Your task to perform on an android device: Go to sound settings Image 0: 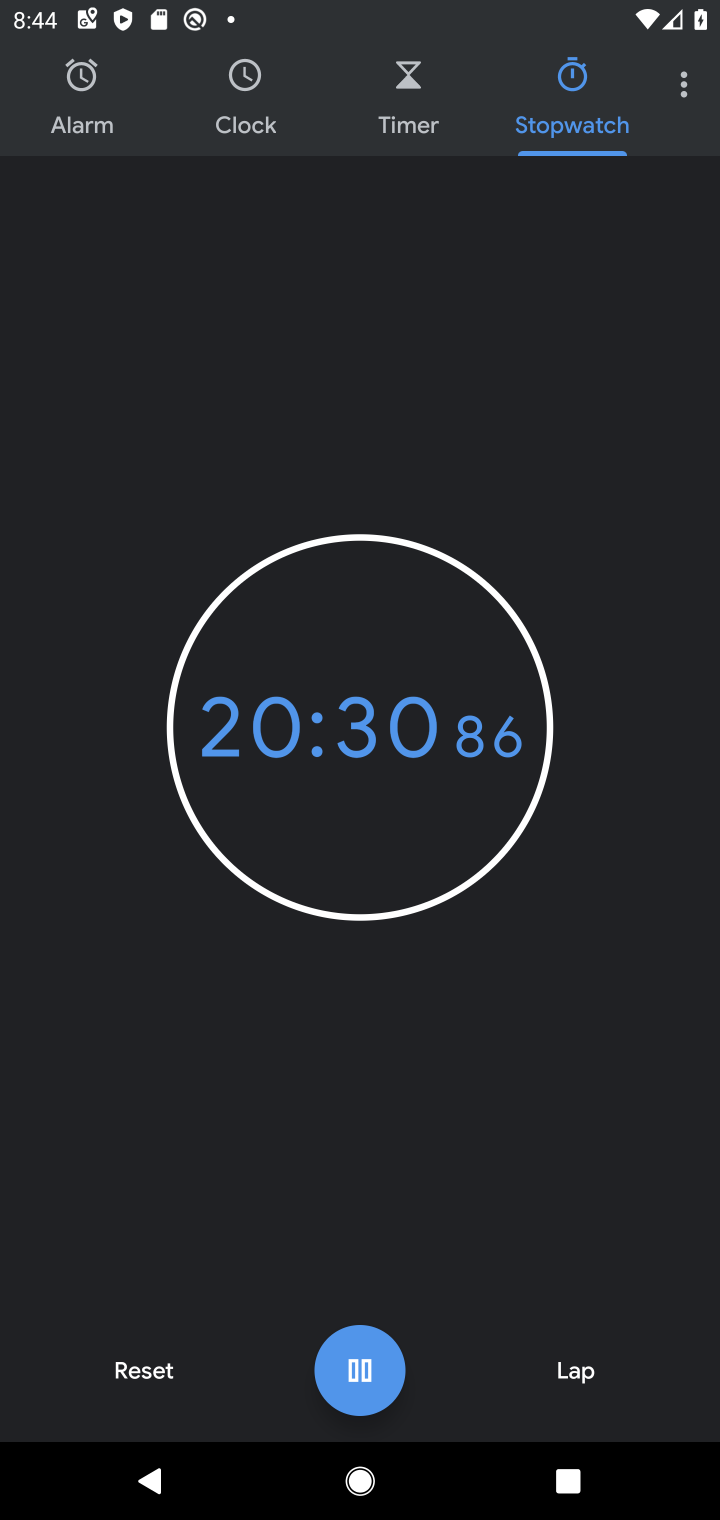
Step 0: press home button
Your task to perform on an android device: Go to sound settings Image 1: 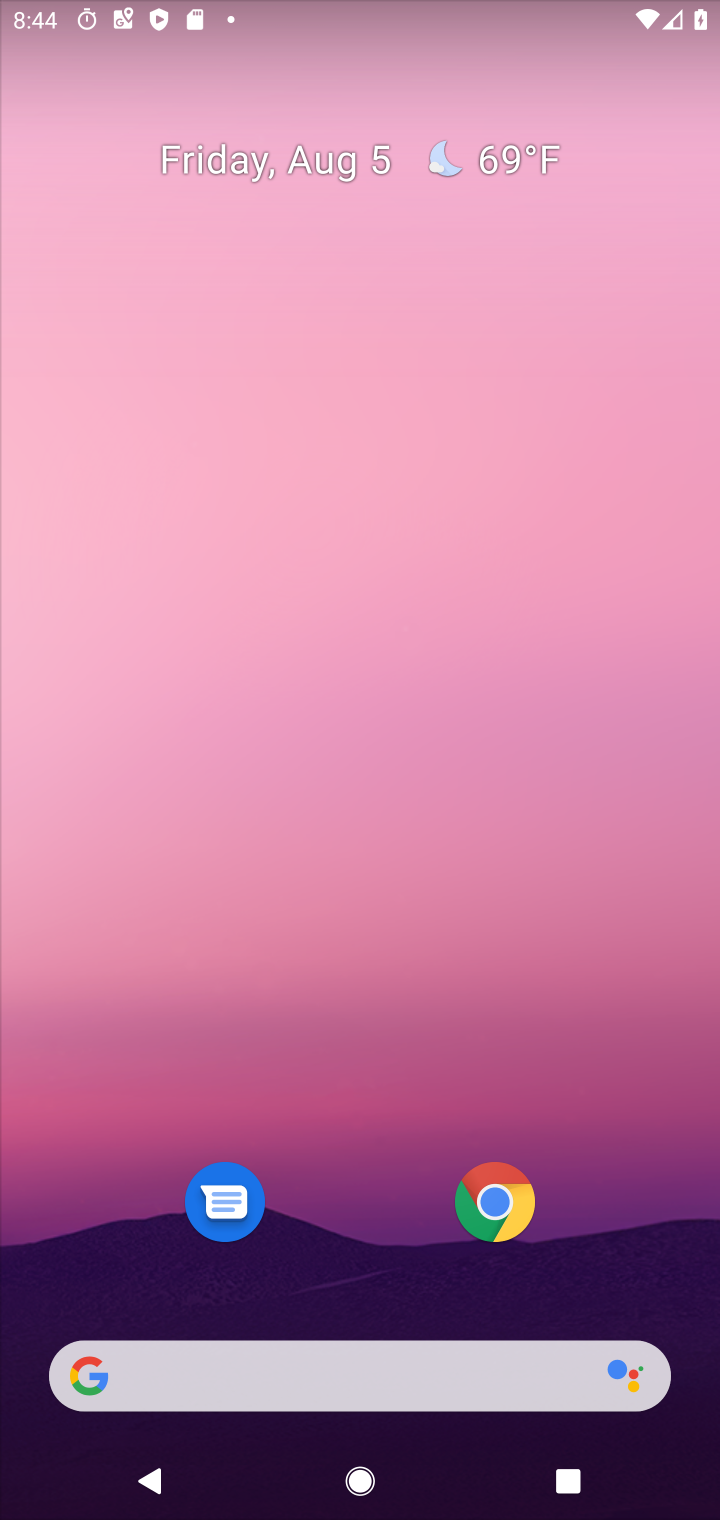
Step 1: drag from (349, 1111) to (377, 180)
Your task to perform on an android device: Go to sound settings Image 2: 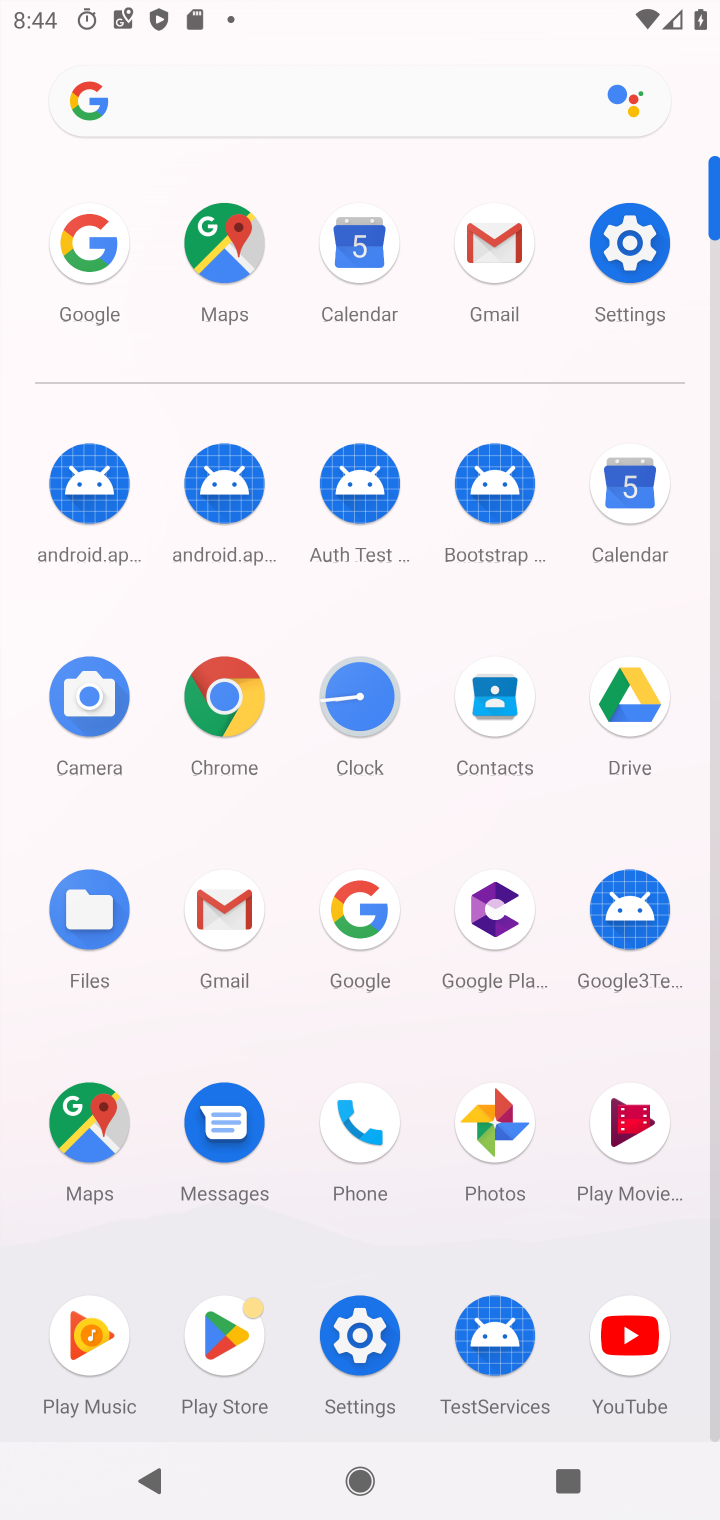
Step 2: click (616, 238)
Your task to perform on an android device: Go to sound settings Image 3: 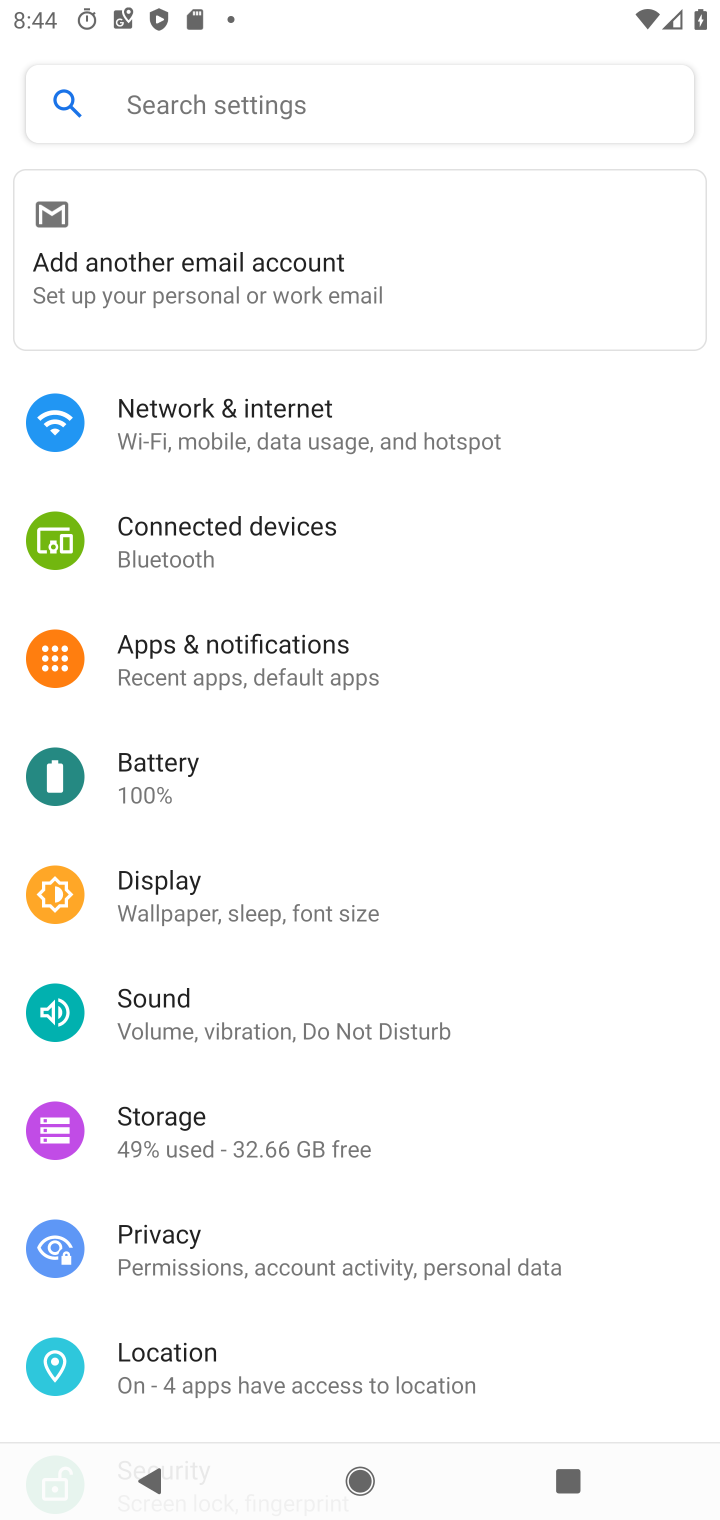
Step 3: click (156, 1003)
Your task to perform on an android device: Go to sound settings Image 4: 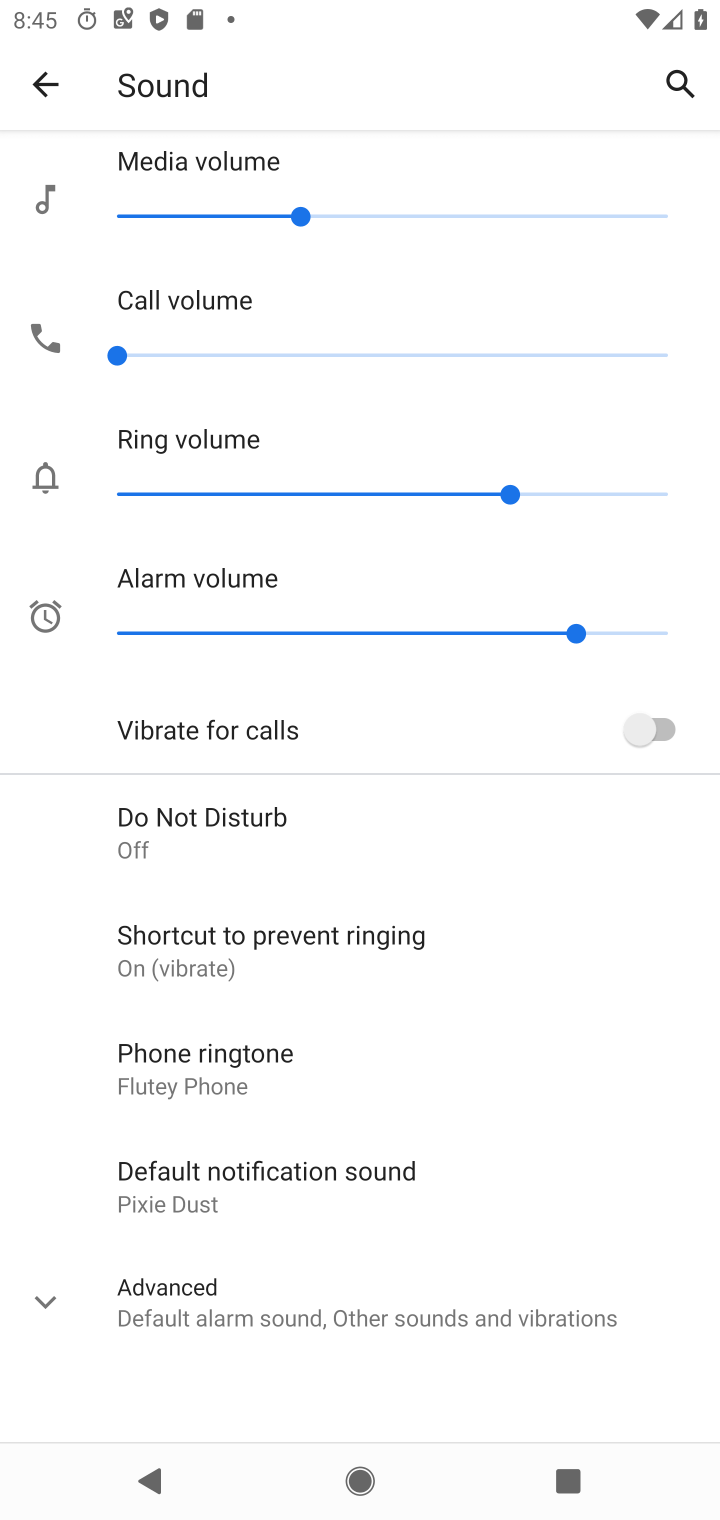
Step 4: task complete